Your task to perform on an android device: turn pop-ups off in chrome Image 0: 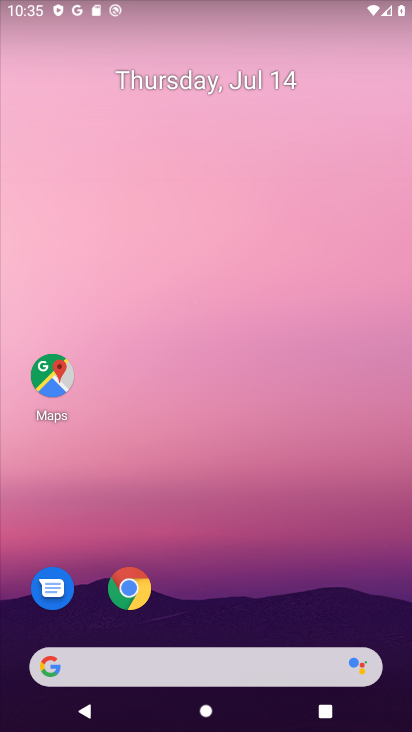
Step 0: press home button
Your task to perform on an android device: turn pop-ups off in chrome Image 1: 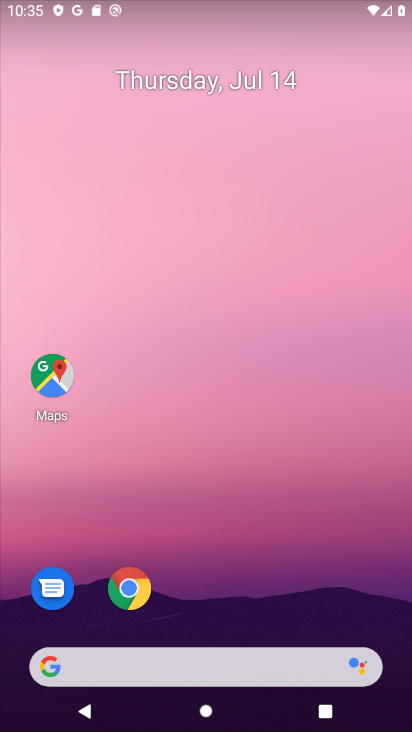
Step 1: drag from (275, 693) to (286, 129)
Your task to perform on an android device: turn pop-ups off in chrome Image 2: 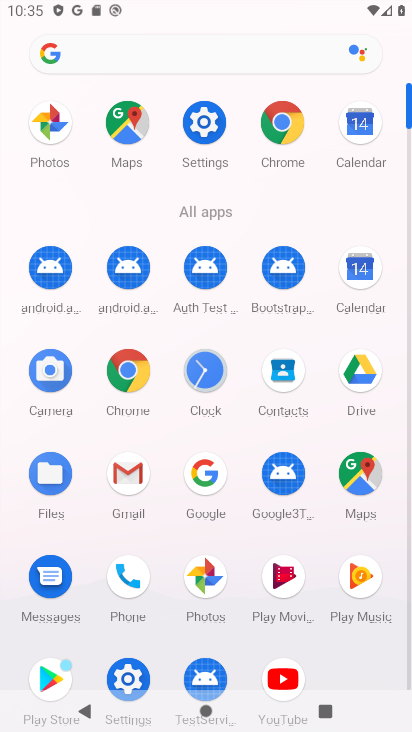
Step 2: click (128, 668)
Your task to perform on an android device: turn pop-ups off in chrome Image 3: 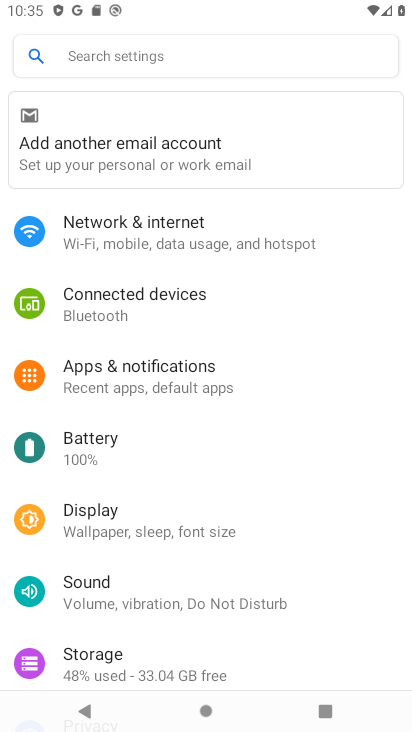
Step 3: press home button
Your task to perform on an android device: turn pop-ups off in chrome Image 4: 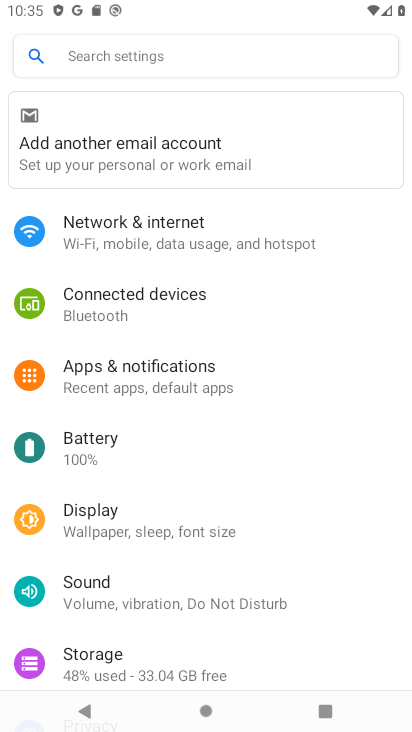
Step 4: drag from (208, 495) to (250, 13)
Your task to perform on an android device: turn pop-ups off in chrome Image 5: 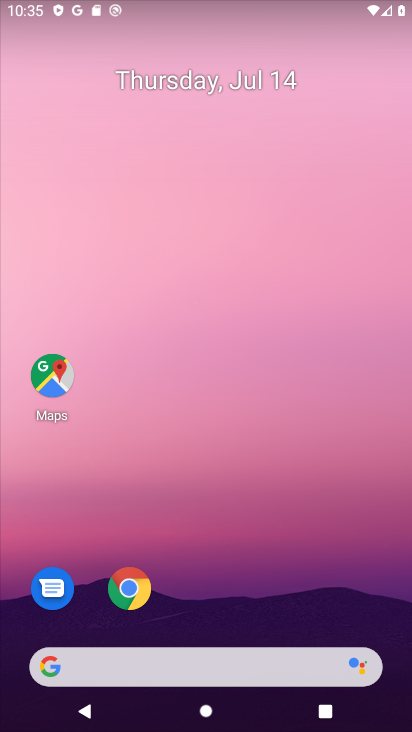
Step 5: click (214, 533)
Your task to perform on an android device: turn pop-ups off in chrome Image 6: 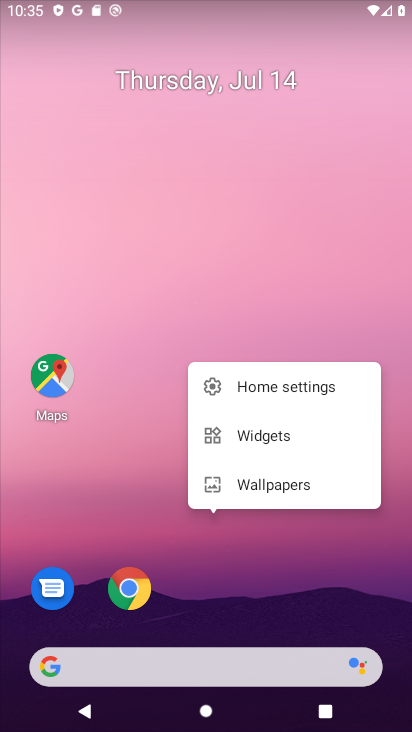
Step 6: click (150, 593)
Your task to perform on an android device: turn pop-ups off in chrome Image 7: 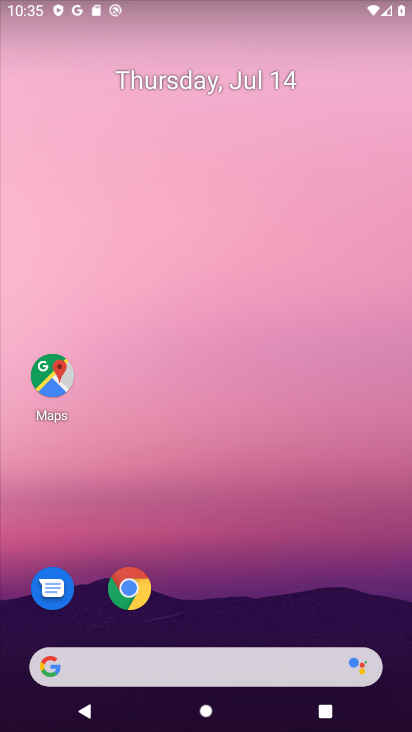
Step 7: click (150, 593)
Your task to perform on an android device: turn pop-ups off in chrome Image 8: 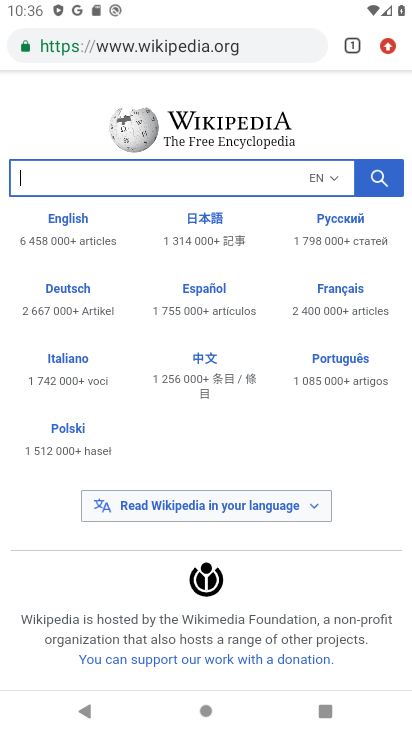
Step 8: click (246, 58)
Your task to perform on an android device: turn pop-ups off in chrome Image 9: 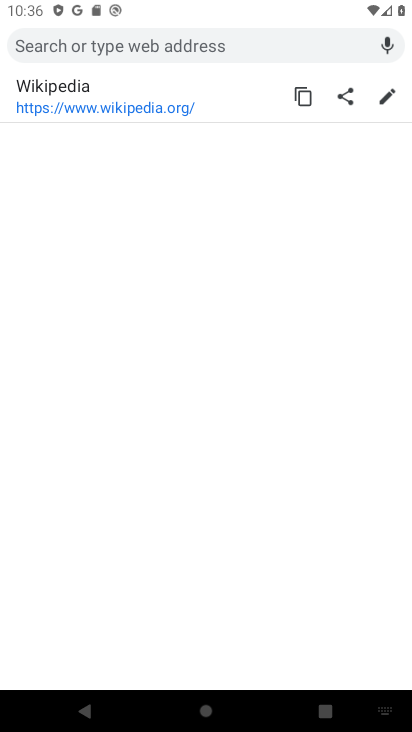
Step 9: press back button
Your task to perform on an android device: turn pop-ups off in chrome Image 10: 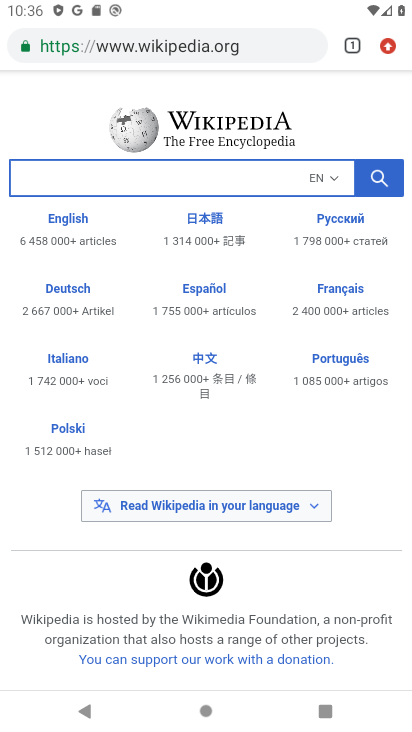
Step 10: drag from (382, 51) to (224, 622)
Your task to perform on an android device: turn pop-ups off in chrome Image 11: 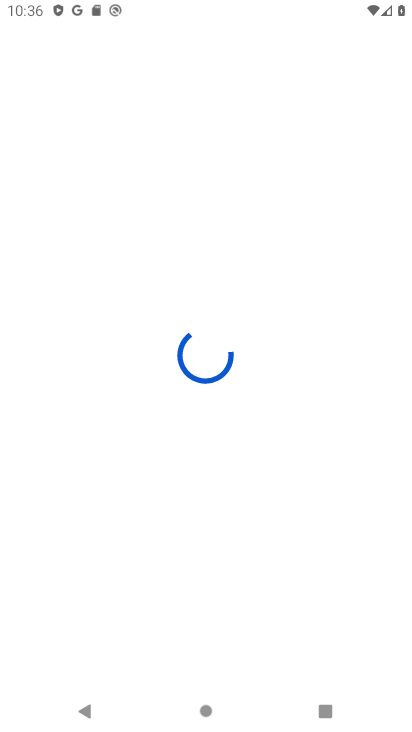
Step 11: press back button
Your task to perform on an android device: turn pop-ups off in chrome Image 12: 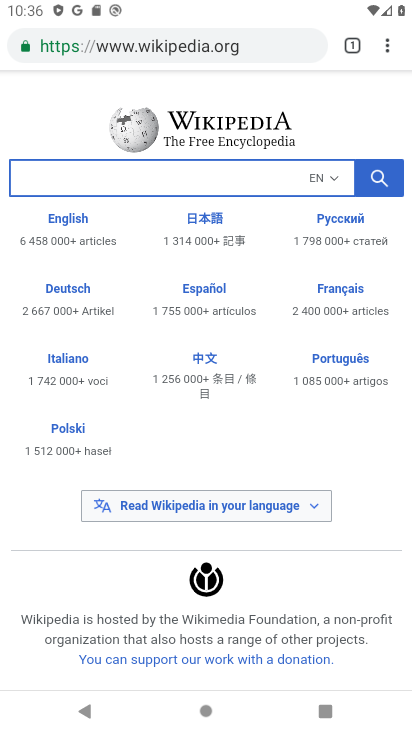
Step 12: drag from (393, 44) to (211, 619)
Your task to perform on an android device: turn pop-ups off in chrome Image 13: 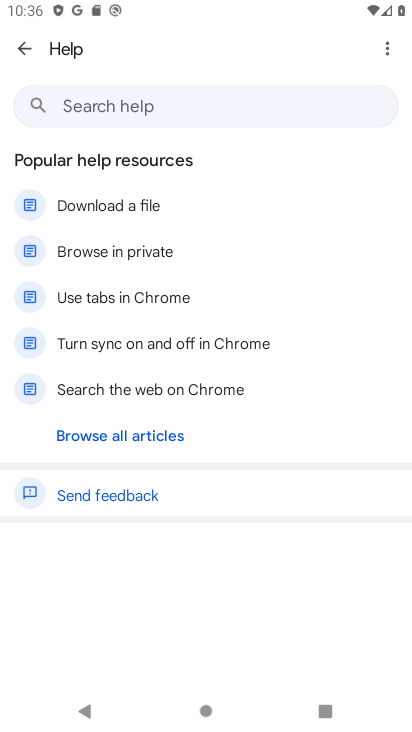
Step 13: press back button
Your task to perform on an android device: turn pop-ups off in chrome Image 14: 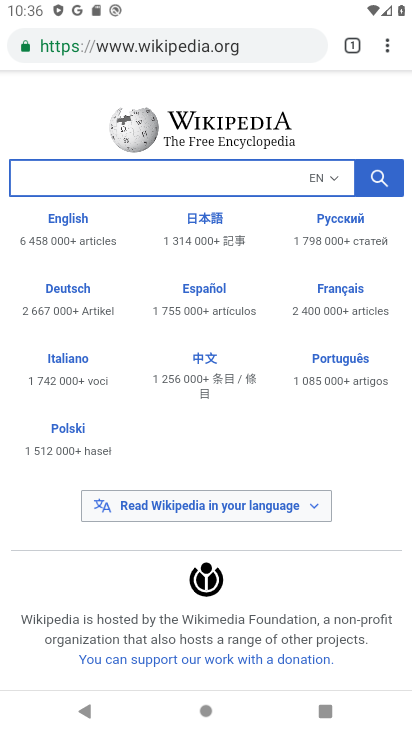
Step 14: drag from (393, 37) to (183, 593)
Your task to perform on an android device: turn pop-ups off in chrome Image 15: 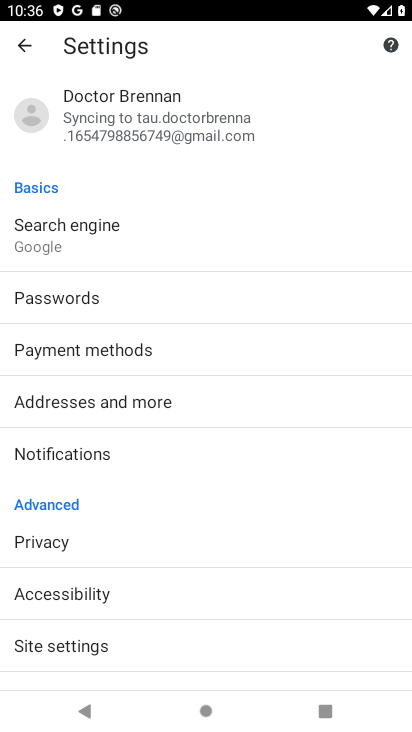
Step 15: drag from (126, 585) to (132, 373)
Your task to perform on an android device: turn pop-ups off in chrome Image 16: 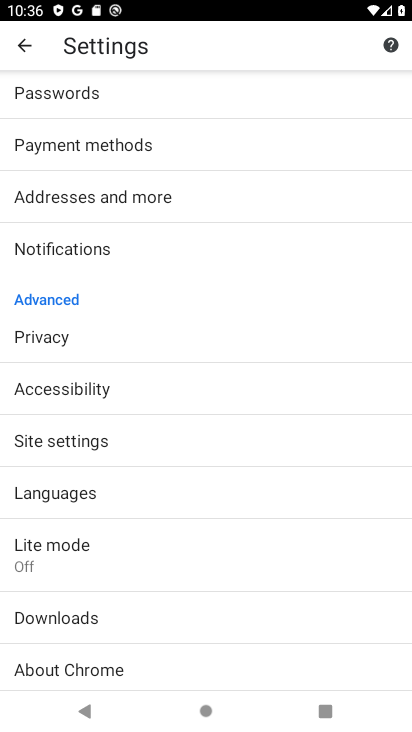
Step 16: click (108, 440)
Your task to perform on an android device: turn pop-ups off in chrome Image 17: 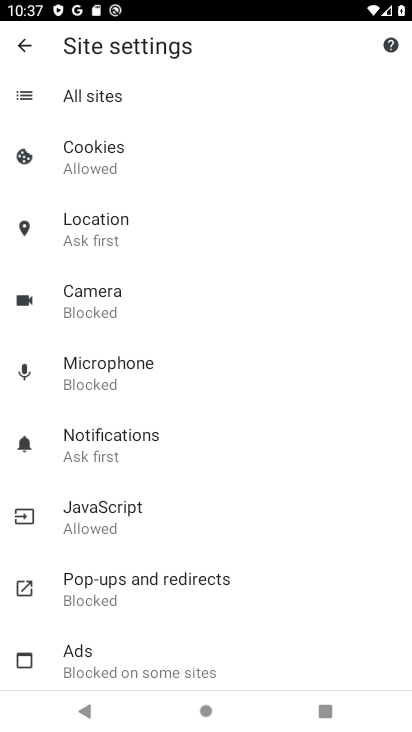
Step 17: click (96, 579)
Your task to perform on an android device: turn pop-ups off in chrome Image 18: 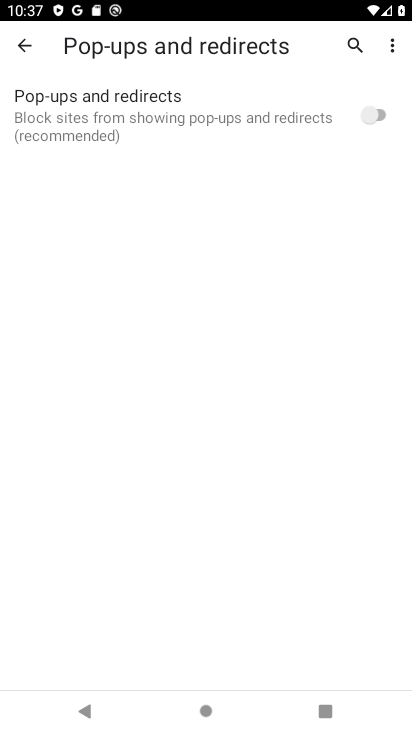
Step 18: task complete